Your task to perform on an android device: Show me popular videos on Youtube Image 0: 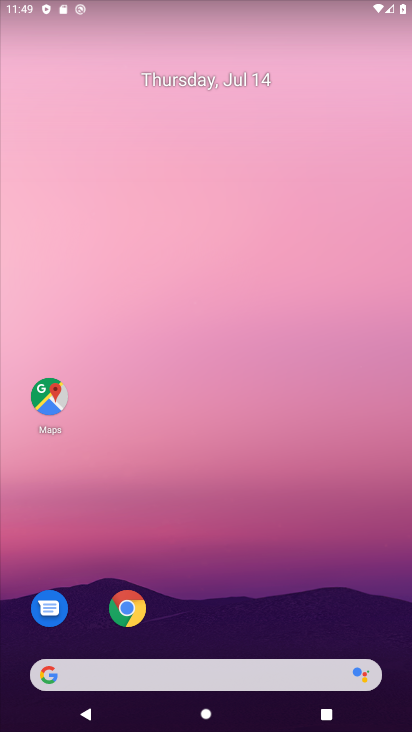
Step 0: drag from (246, 602) to (234, 142)
Your task to perform on an android device: Show me popular videos on Youtube Image 1: 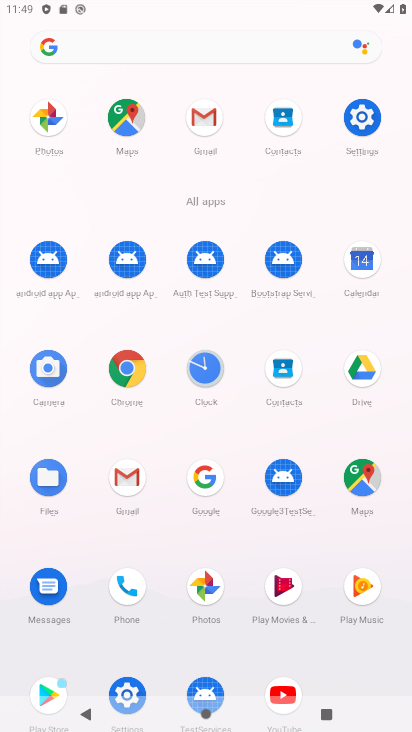
Step 1: click (279, 688)
Your task to perform on an android device: Show me popular videos on Youtube Image 2: 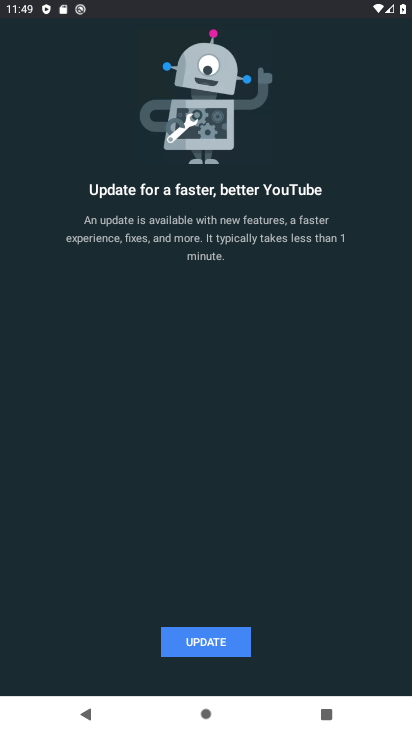
Step 2: click (195, 641)
Your task to perform on an android device: Show me popular videos on Youtube Image 3: 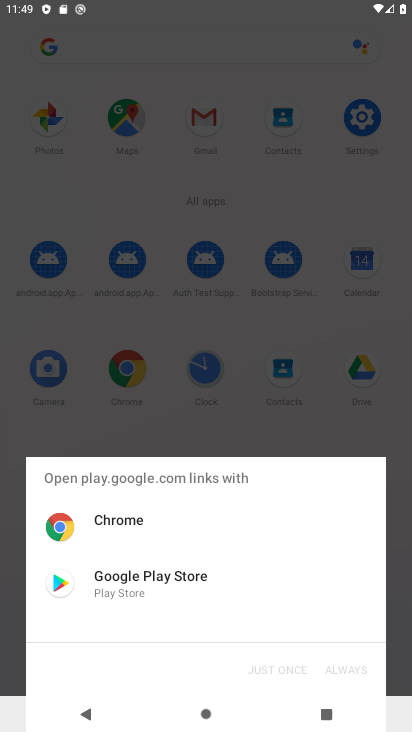
Step 3: click (135, 587)
Your task to perform on an android device: Show me popular videos on Youtube Image 4: 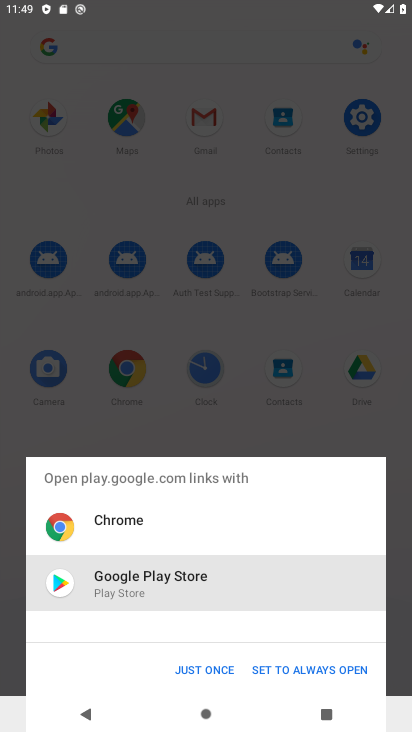
Step 4: click (207, 671)
Your task to perform on an android device: Show me popular videos on Youtube Image 5: 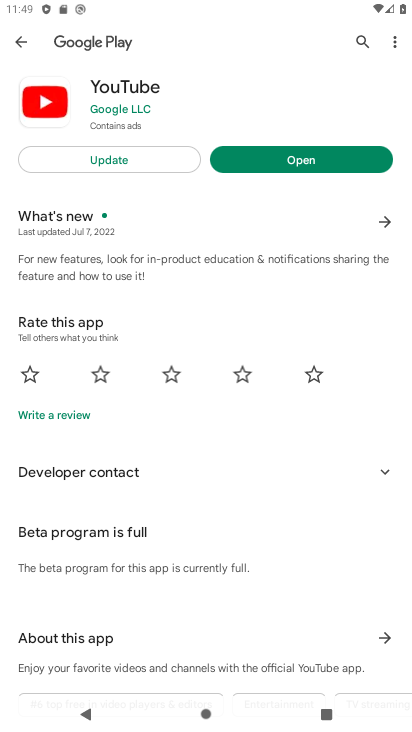
Step 5: click (111, 164)
Your task to perform on an android device: Show me popular videos on Youtube Image 6: 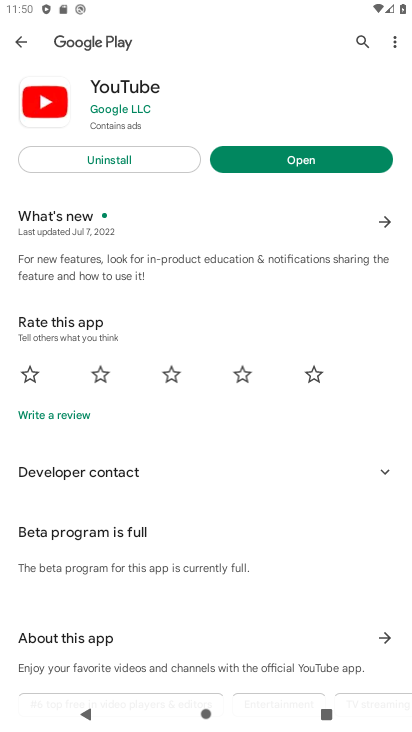
Step 6: click (311, 165)
Your task to perform on an android device: Show me popular videos on Youtube Image 7: 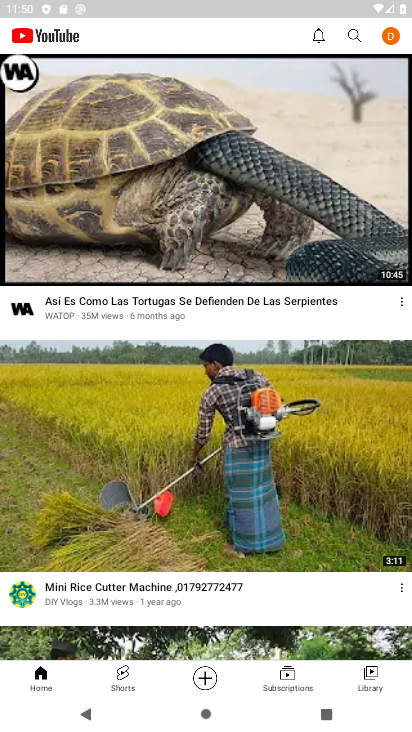
Step 7: task complete